Your task to perform on an android device: turn vacation reply on in the gmail app Image 0: 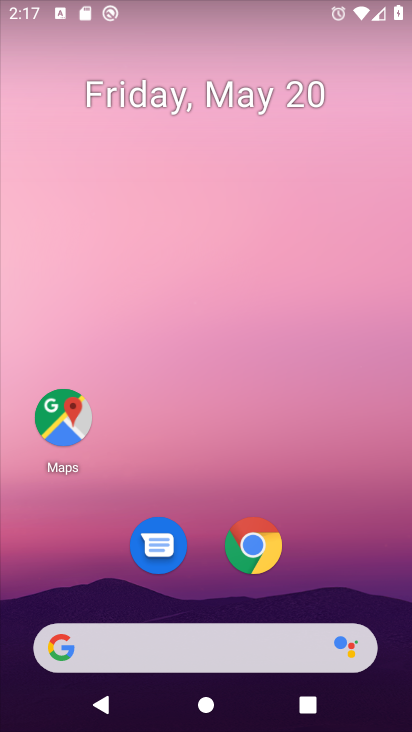
Step 0: drag from (360, 613) to (392, 317)
Your task to perform on an android device: turn vacation reply on in the gmail app Image 1: 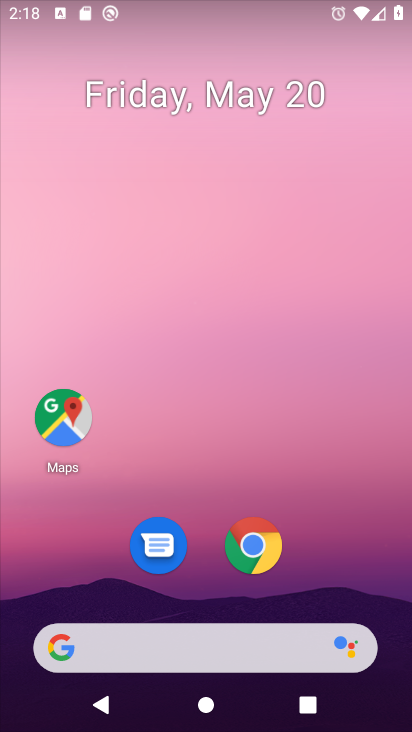
Step 1: drag from (207, 613) to (282, 7)
Your task to perform on an android device: turn vacation reply on in the gmail app Image 2: 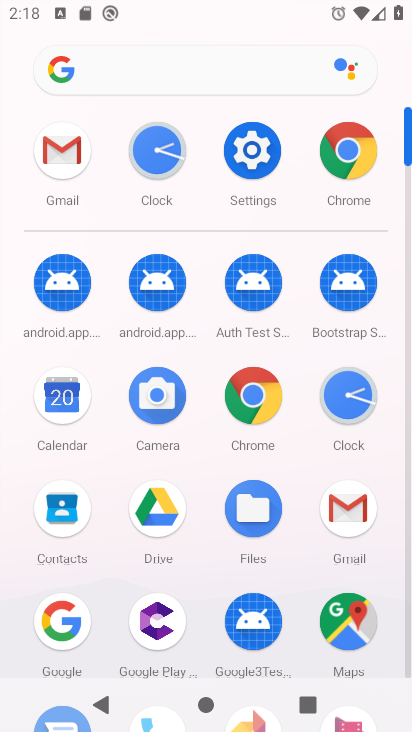
Step 2: click (354, 502)
Your task to perform on an android device: turn vacation reply on in the gmail app Image 3: 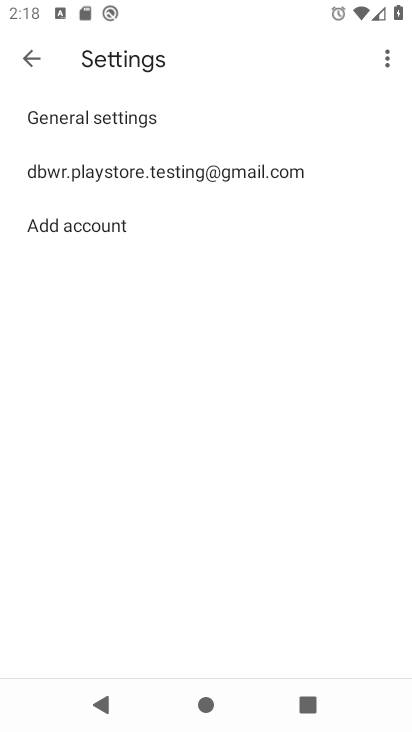
Step 3: press back button
Your task to perform on an android device: turn vacation reply on in the gmail app Image 4: 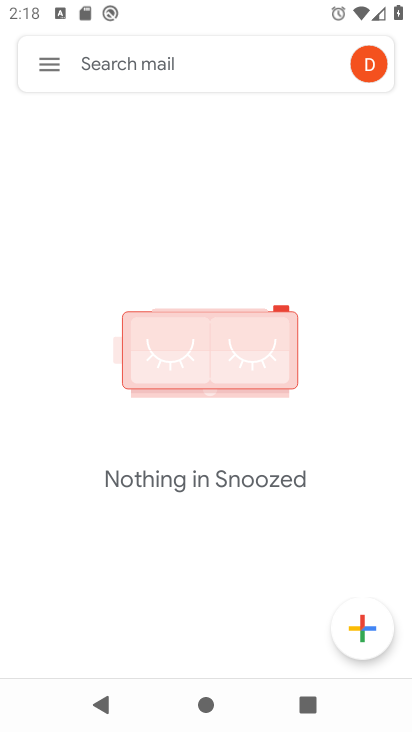
Step 4: click (368, 63)
Your task to perform on an android device: turn vacation reply on in the gmail app Image 5: 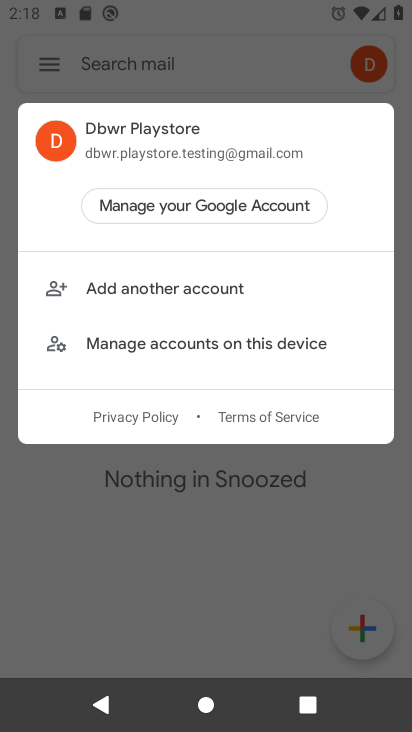
Step 5: click (323, 545)
Your task to perform on an android device: turn vacation reply on in the gmail app Image 6: 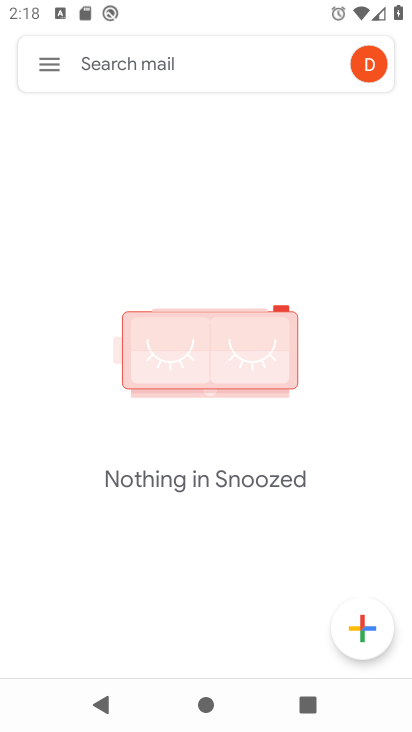
Step 6: click (54, 67)
Your task to perform on an android device: turn vacation reply on in the gmail app Image 7: 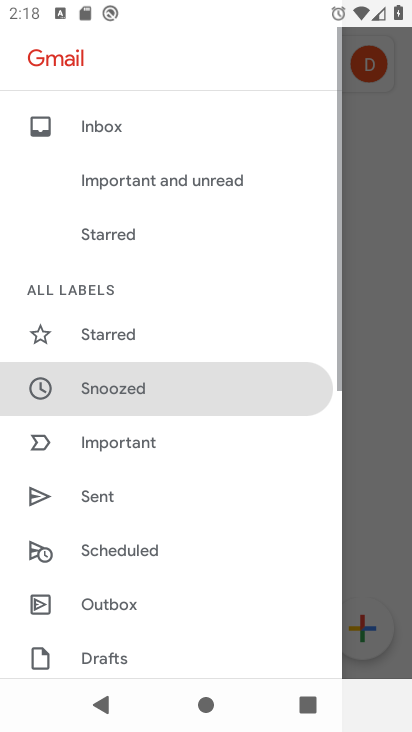
Step 7: drag from (157, 649) to (163, 89)
Your task to perform on an android device: turn vacation reply on in the gmail app Image 8: 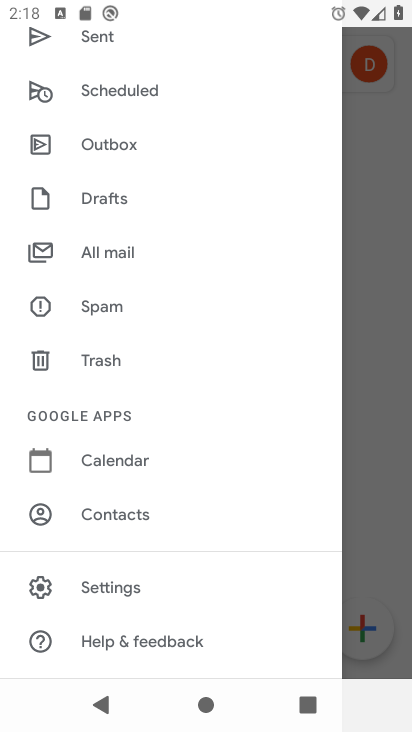
Step 8: click (147, 593)
Your task to perform on an android device: turn vacation reply on in the gmail app Image 9: 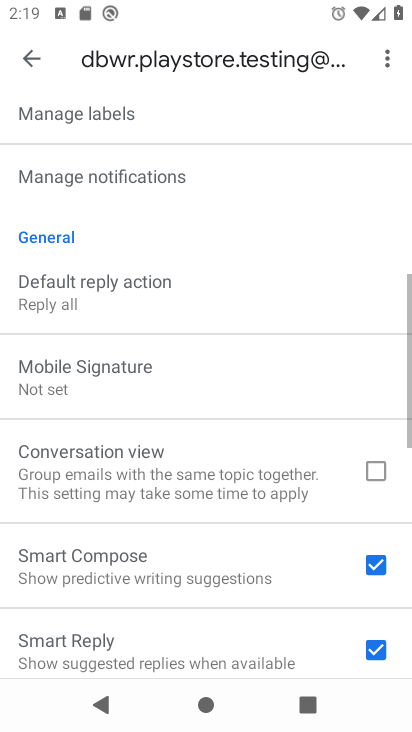
Step 9: drag from (147, 593) to (128, 256)
Your task to perform on an android device: turn vacation reply on in the gmail app Image 10: 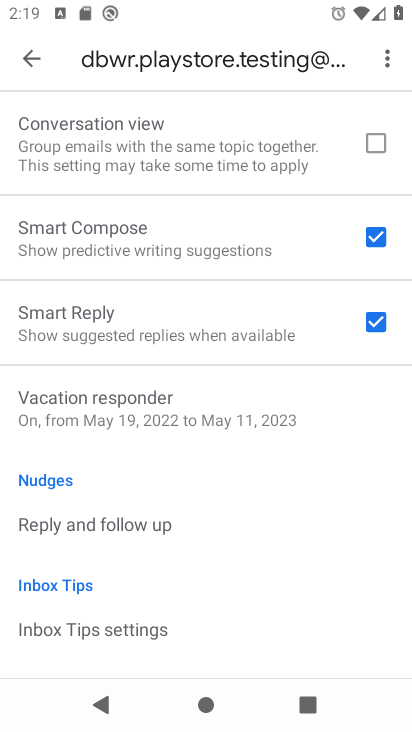
Step 10: click (92, 405)
Your task to perform on an android device: turn vacation reply on in the gmail app Image 11: 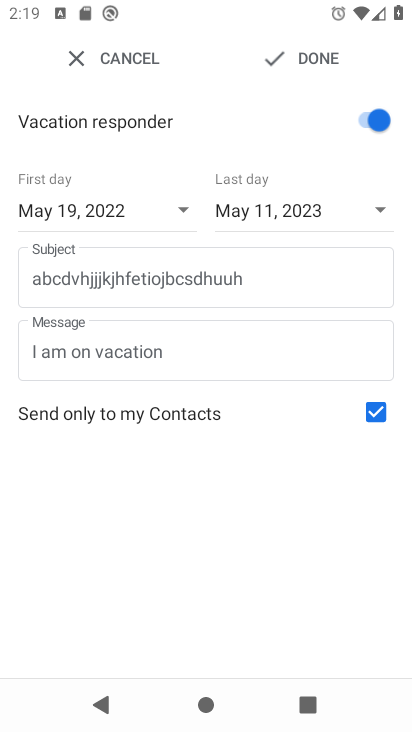
Step 11: click (312, 54)
Your task to perform on an android device: turn vacation reply on in the gmail app Image 12: 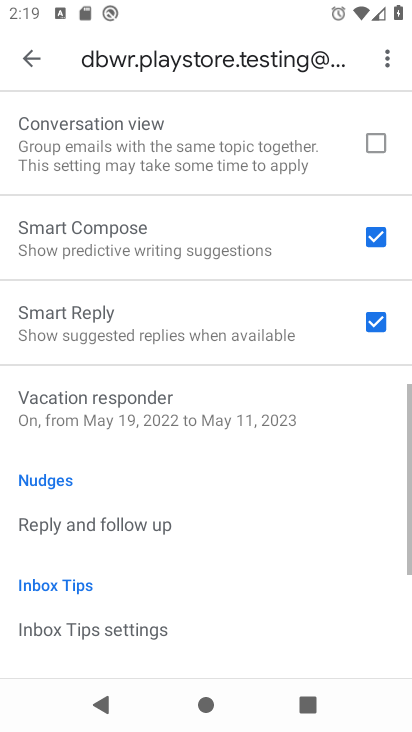
Step 12: task complete